Your task to perform on an android device: change keyboard looks Image 0: 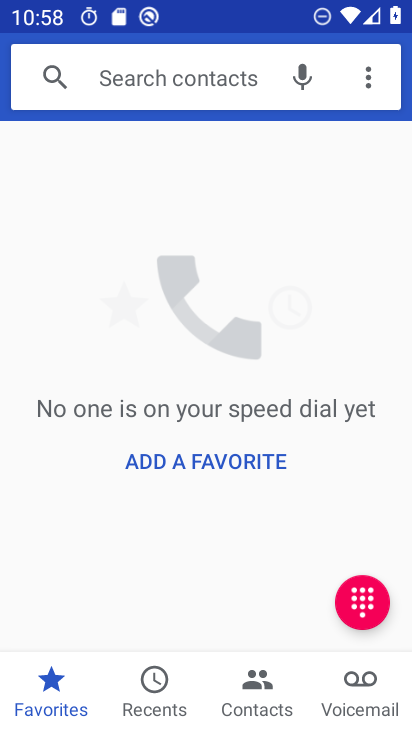
Step 0: press home button
Your task to perform on an android device: change keyboard looks Image 1: 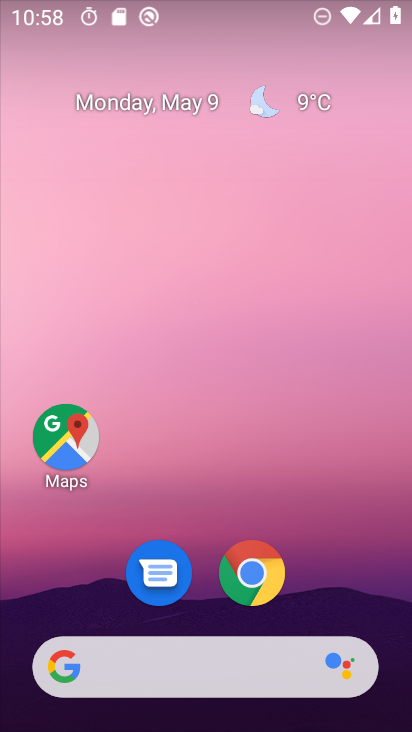
Step 1: drag from (301, 516) to (266, 73)
Your task to perform on an android device: change keyboard looks Image 2: 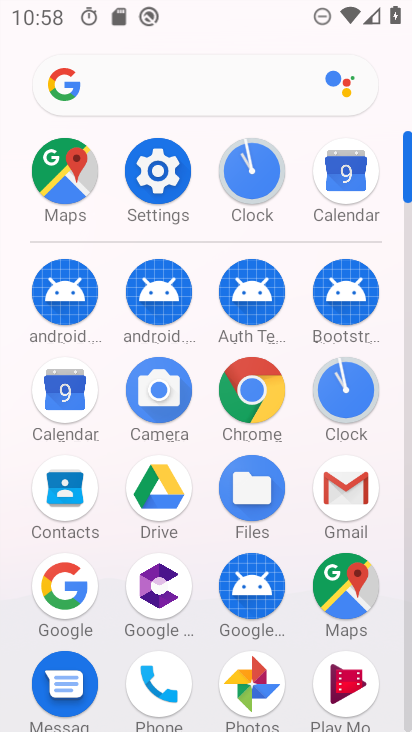
Step 2: click (167, 177)
Your task to perform on an android device: change keyboard looks Image 3: 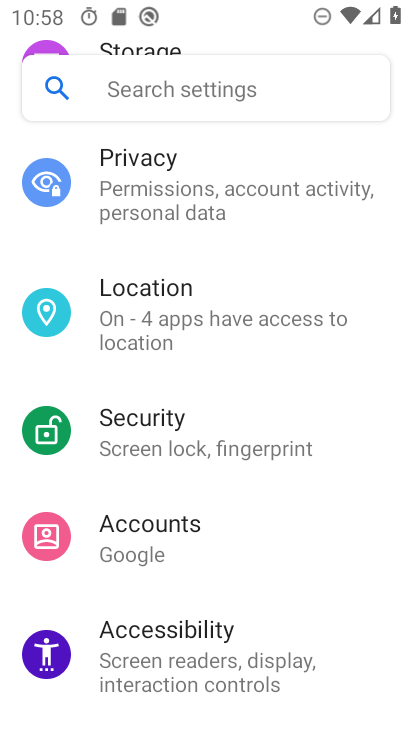
Step 3: drag from (264, 604) to (294, 242)
Your task to perform on an android device: change keyboard looks Image 4: 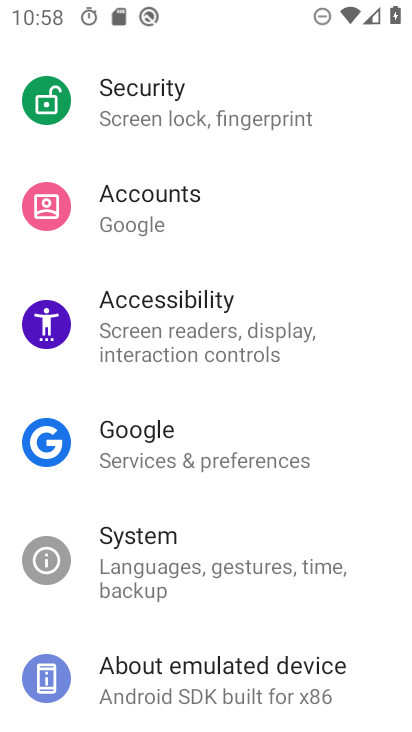
Step 4: click (248, 579)
Your task to perform on an android device: change keyboard looks Image 5: 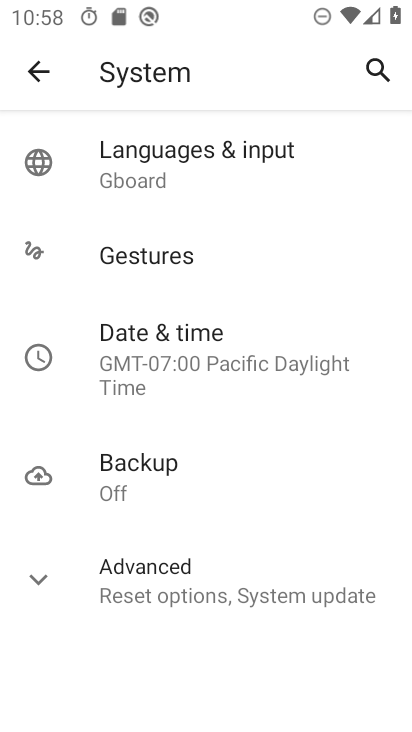
Step 5: click (181, 165)
Your task to perform on an android device: change keyboard looks Image 6: 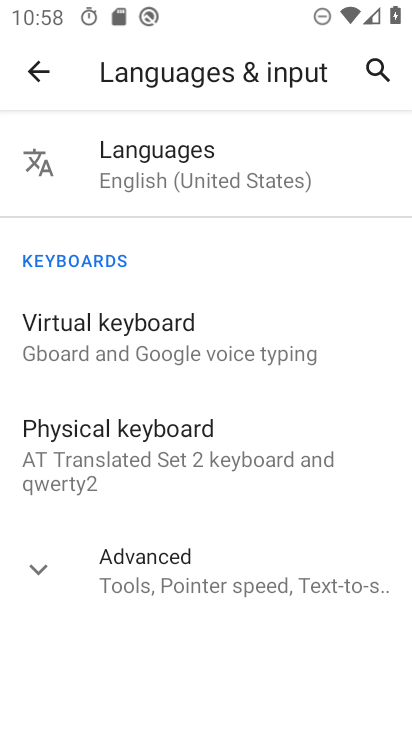
Step 6: click (170, 338)
Your task to perform on an android device: change keyboard looks Image 7: 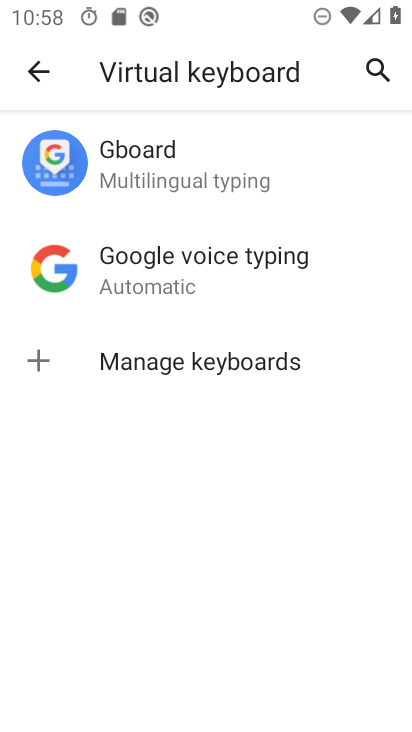
Step 7: click (156, 168)
Your task to perform on an android device: change keyboard looks Image 8: 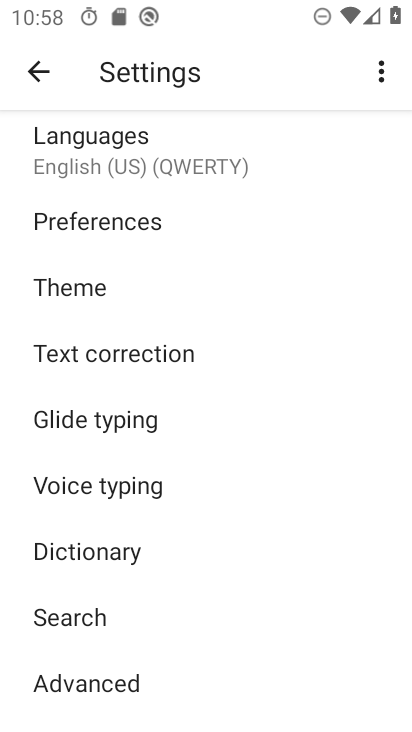
Step 8: click (84, 283)
Your task to perform on an android device: change keyboard looks Image 9: 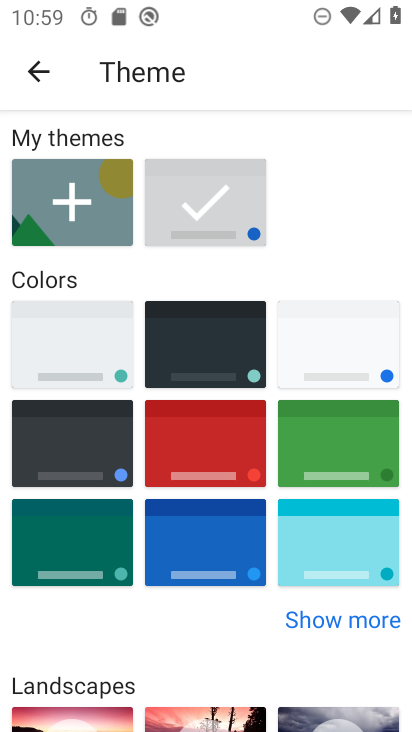
Step 9: click (60, 355)
Your task to perform on an android device: change keyboard looks Image 10: 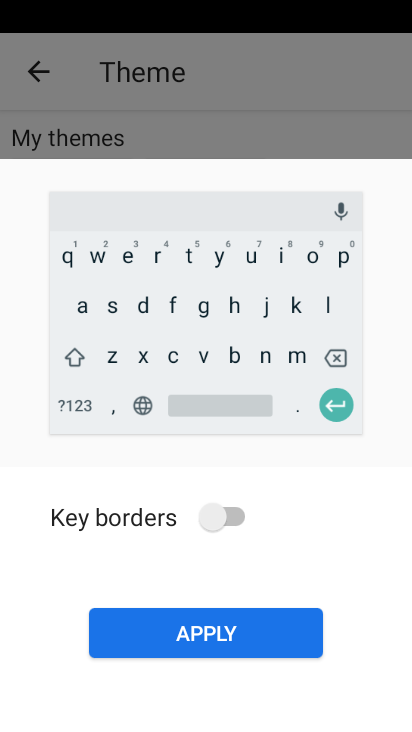
Step 10: click (169, 652)
Your task to perform on an android device: change keyboard looks Image 11: 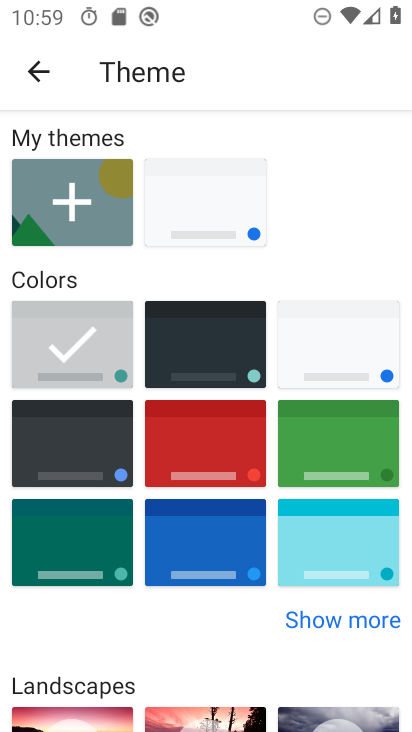
Step 11: task complete